Your task to perform on an android device: turn off picture-in-picture Image 0: 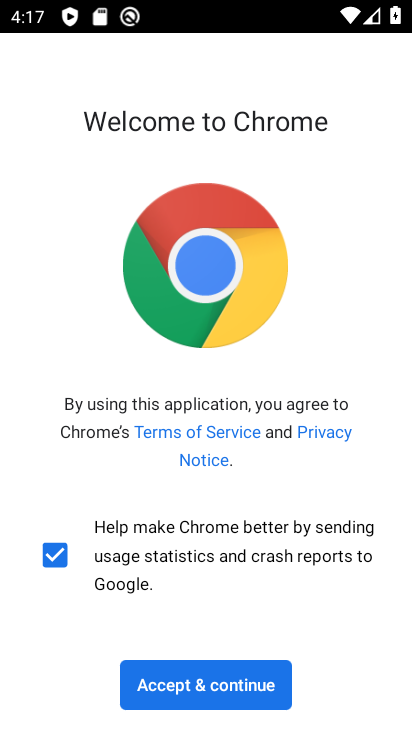
Step 0: press back button
Your task to perform on an android device: turn off picture-in-picture Image 1: 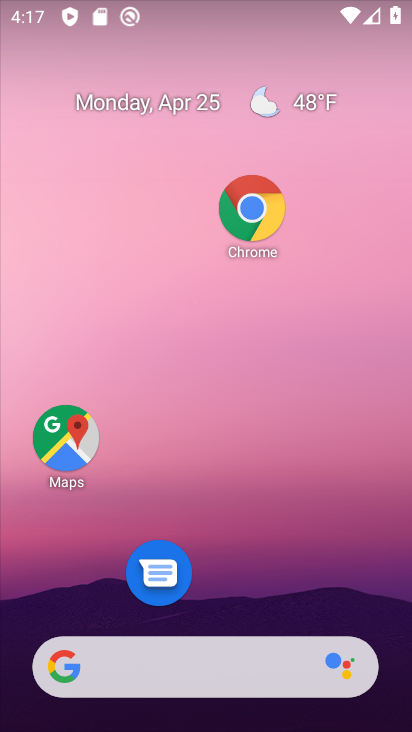
Step 1: click (255, 228)
Your task to perform on an android device: turn off picture-in-picture Image 2: 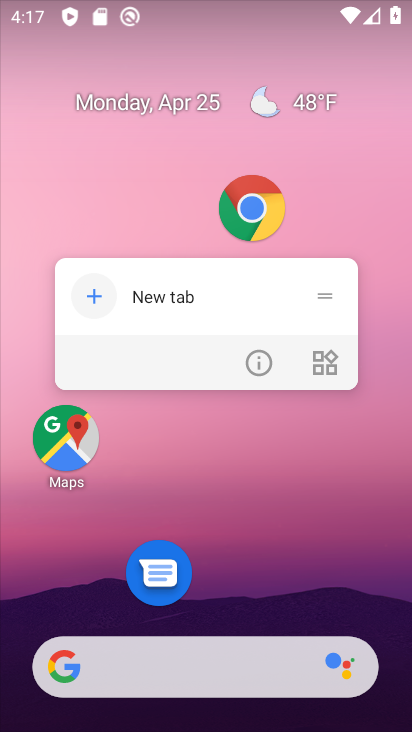
Step 2: click (265, 368)
Your task to perform on an android device: turn off picture-in-picture Image 3: 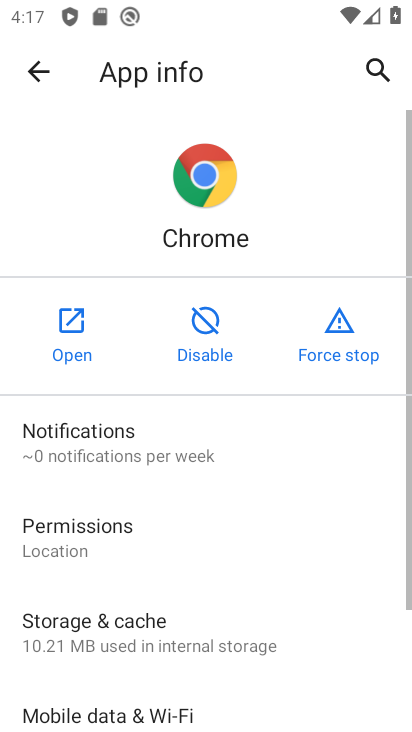
Step 3: drag from (194, 672) to (230, 242)
Your task to perform on an android device: turn off picture-in-picture Image 4: 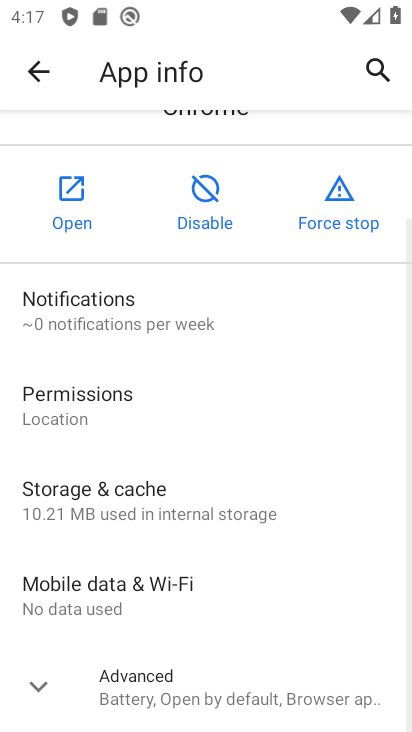
Step 4: drag from (252, 476) to (272, 273)
Your task to perform on an android device: turn off picture-in-picture Image 5: 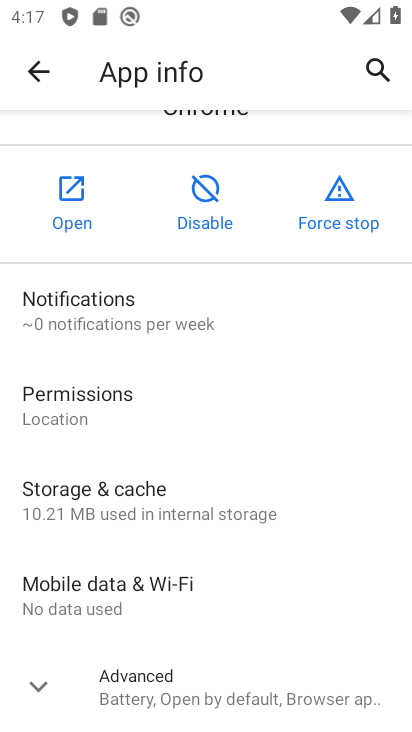
Step 5: click (129, 675)
Your task to perform on an android device: turn off picture-in-picture Image 6: 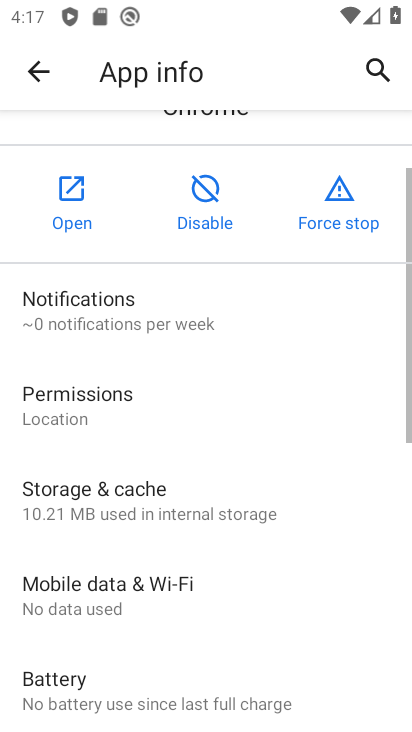
Step 6: drag from (166, 656) to (227, 223)
Your task to perform on an android device: turn off picture-in-picture Image 7: 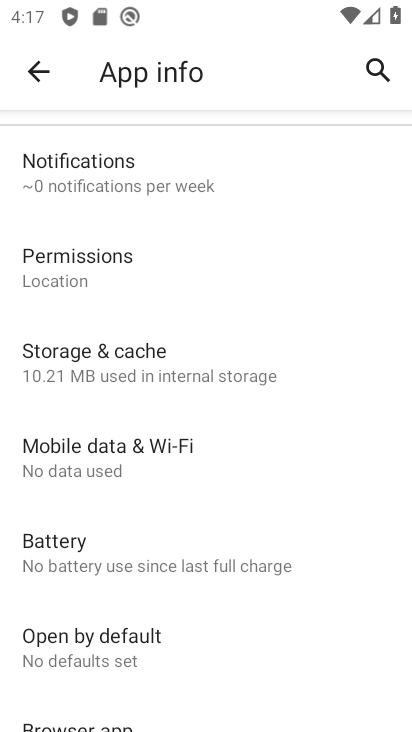
Step 7: drag from (157, 660) to (207, 268)
Your task to perform on an android device: turn off picture-in-picture Image 8: 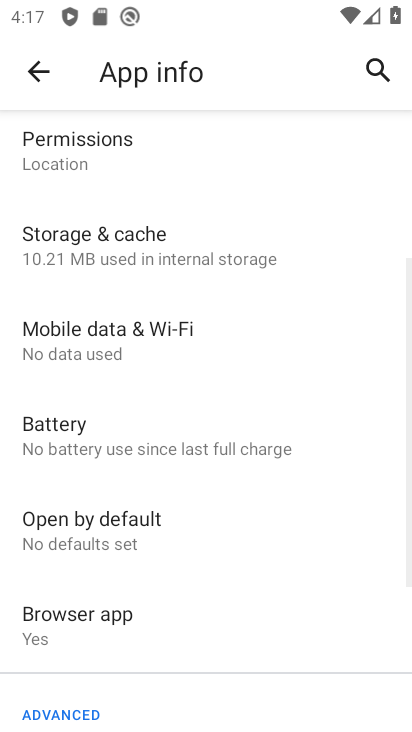
Step 8: drag from (146, 665) to (232, 291)
Your task to perform on an android device: turn off picture-in-picture Image 9: 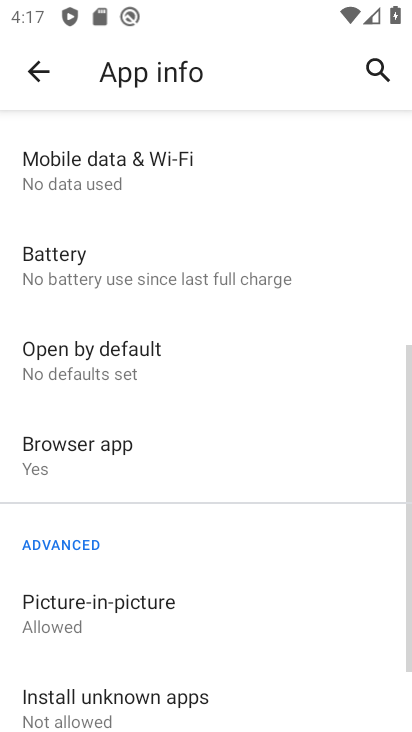
Step 9: click (121, 604)
Your task to perform on an android device: turn off picture-in-picture Image 10: 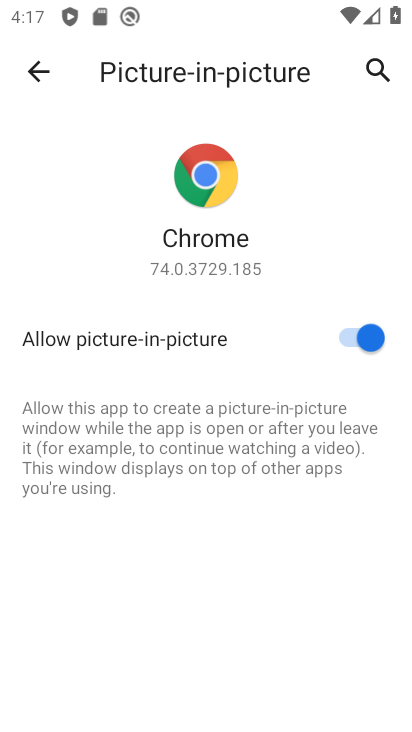
Step 10: click (346, 327)
Your task to perform on an android device: turn off picture-in-picture Image 11: 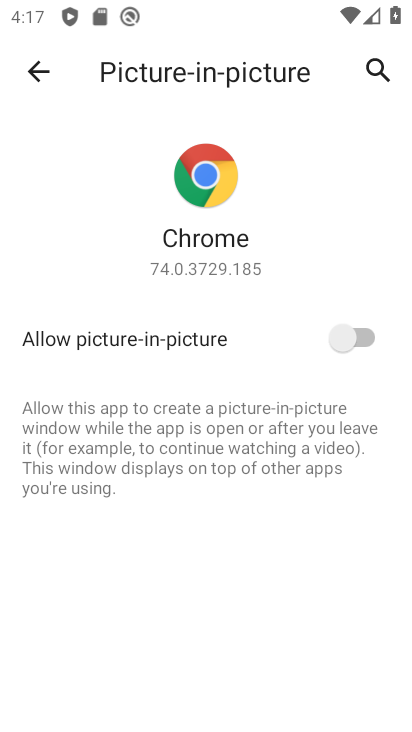
Step 11: task complete